Your task to perform on an android device: install app "Cash App" Image 0: 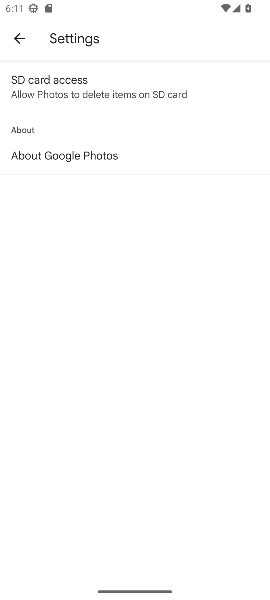
Step 0: press back button
Your task to perform on an android device: install app "Cash App" Image 1: 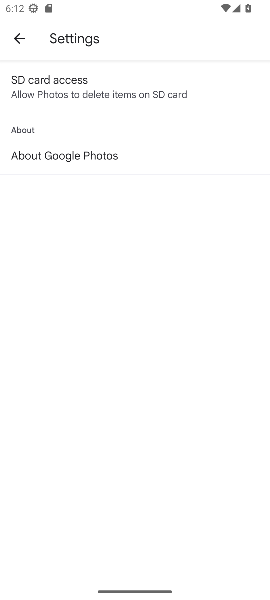
Step 1: press home button
Your task to perform on an android device: install app "Cash App" Image 2: 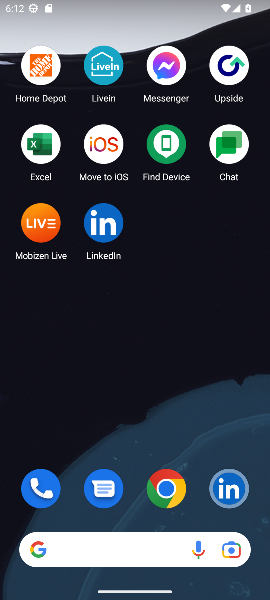
Step 2: drag from (126, 414) to (136, 101)
Your task to perform on an android device: install app "Cash App" Image 3: 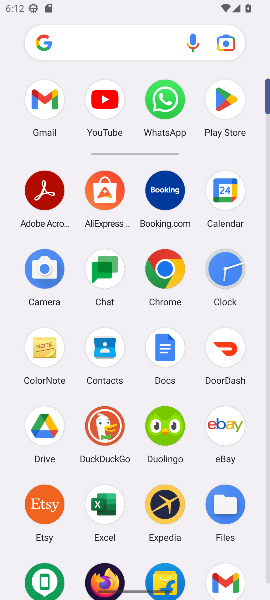
Step 3: click (214, 109)
Your task to perform on an android device: install app "Cash App" Image 4: 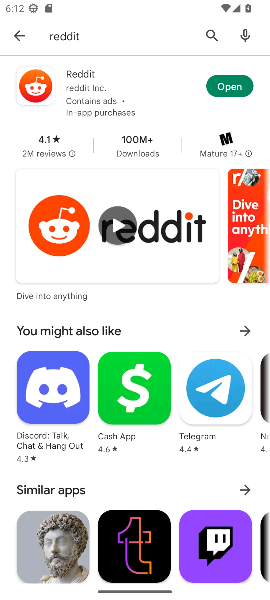
Step 4: click (214, 23)
Your task to perform on an android device: install app "Cash App" Image 5: 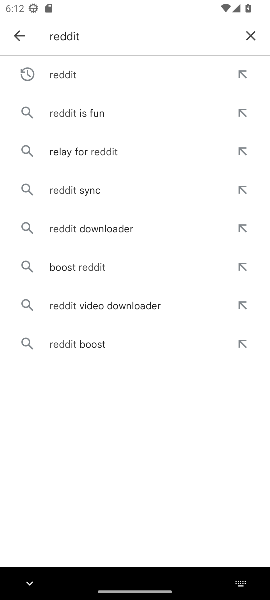
Step 5: click (249, 36)
Your task to perform on an android device: install app "Cash App" Image 6: 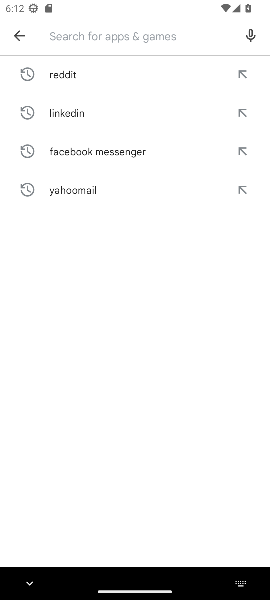
Step 6: type "cash app"
Your task to perform on an android device: install app "Cash App" Image 7: 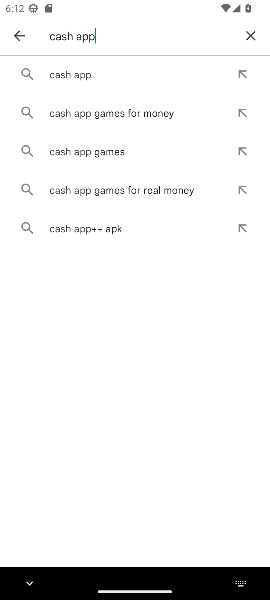
Step 7: click (78, 67)
Your task to perform on an android device: install app "Cash App" Image 8: 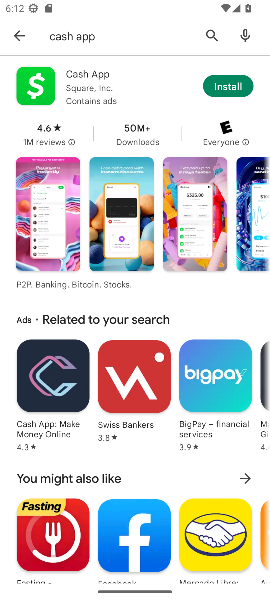
Step 8: click (208, 92)
Your task to perform on an android device: install app "Cash App" Image 9: 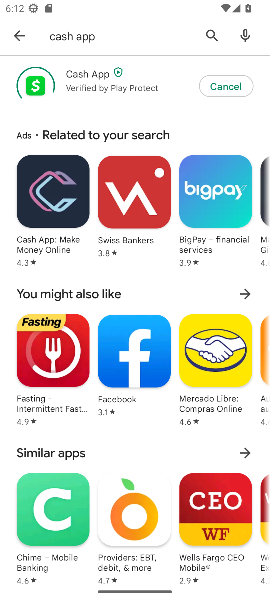
Step 9: task complete